Your task to perform on an android device: Open Yahoo.com Image 0: 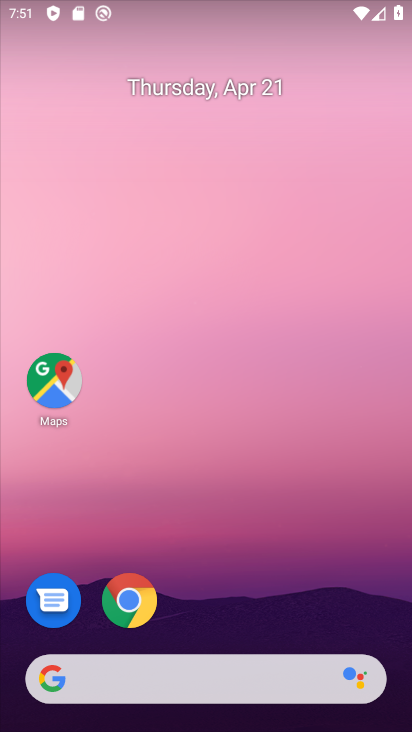
Step 0: drag from (248, 612) to (216, 251)
Your task to perform on an android device: Open Yahoo.com Image 1: 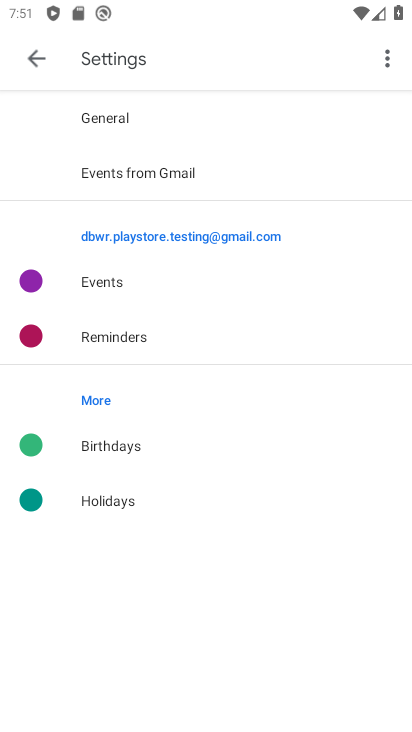
Step 1: press home button
Your task to perform on an android device: Open Yahoo.com Image 2: 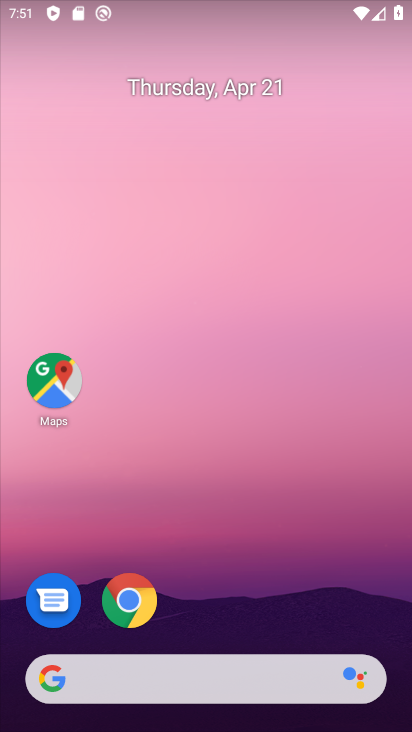
Step 2: click (144, 601)
Your task to perform on an android device: Open Yahoo.com Image 3: 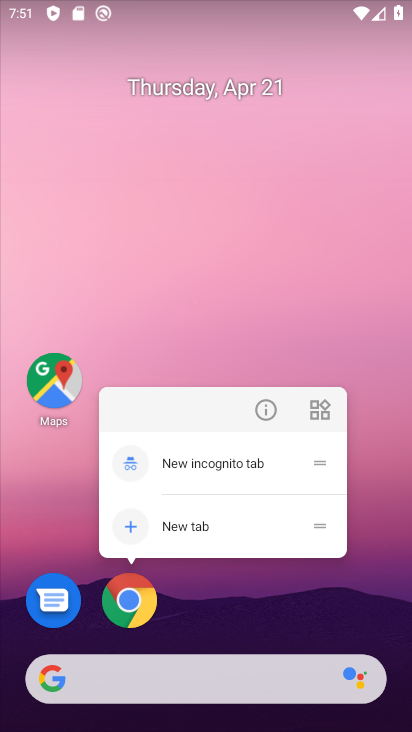
Step 3: click (131, 590)
Your task to perform on an android device: Open Yahoo.com Image 4: 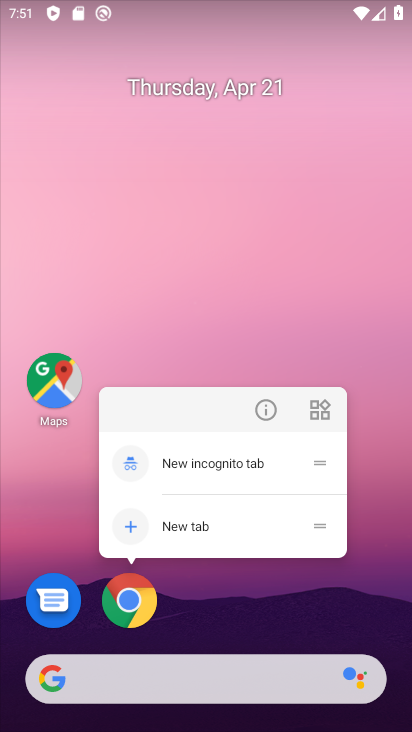
Step 4: click (125, 605)
Your task to perform on an android device: Open Yahoo.com Image 5: 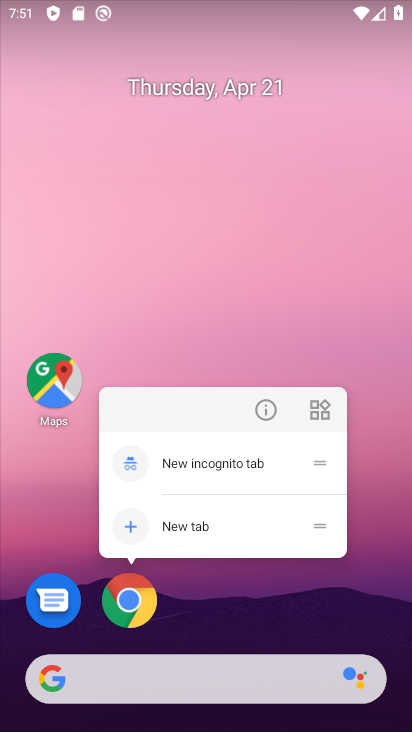
Step 5: click (136, 617)
Your task to perform on an android device: Open Yahoo.com Image 6: 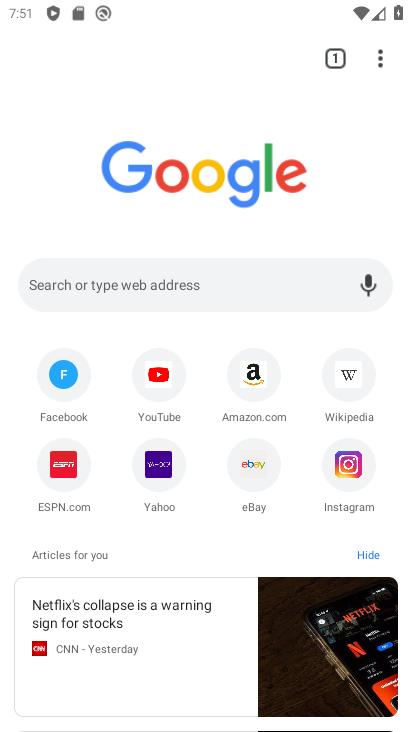
Step 6: click (155, 463)
Your task to perform on an android device: Open Yahoo.com Image 7: 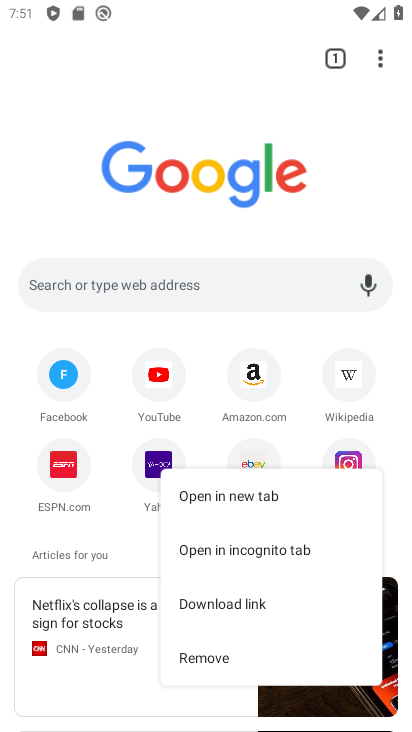
Step 7: click (152, 469)
Your task to perform on an android device: Open Yahoo.com Image 8: 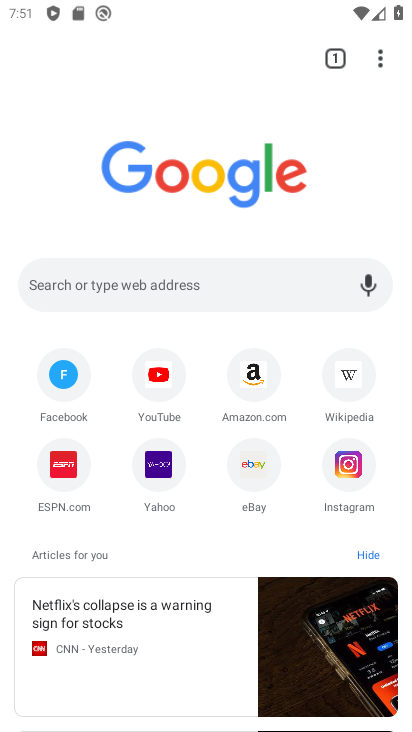
Step 8: click (159, 477)
Your task to perform on an android device: Open Yahoo.com Image 9: 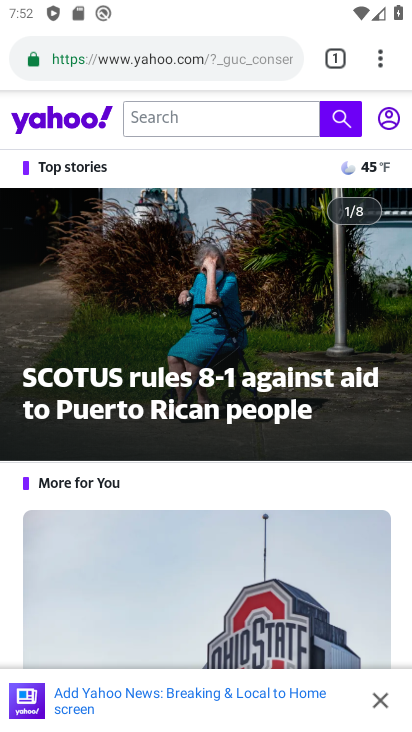
Step 9: task complete